Your task to perform on an android device: turn off sleep mode Image 0: 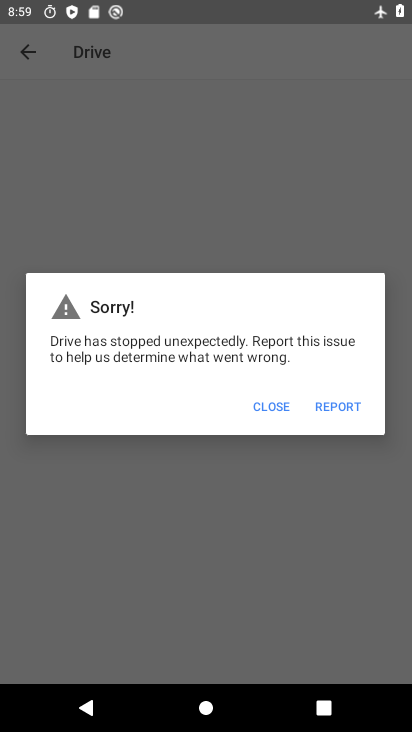
Step 0: press home button
Your task to perform on an android device: turn off sleep mode Image 1: 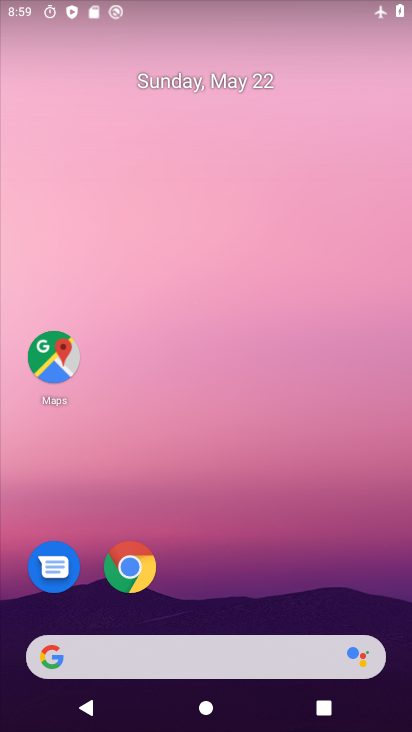
Step 1: drag from (200, 601) to (218, 0)
Your task to perform on an android device: turn off sleep mode Image 2: 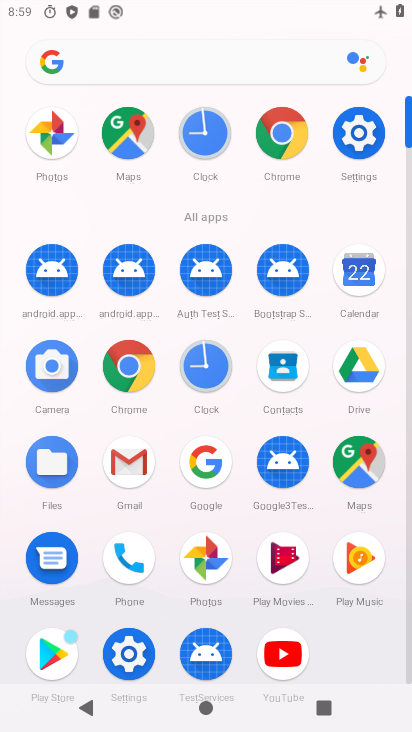
Step 2: click (359, 141)
Your task to perform on an android device: turn off sleep mode Image 3: 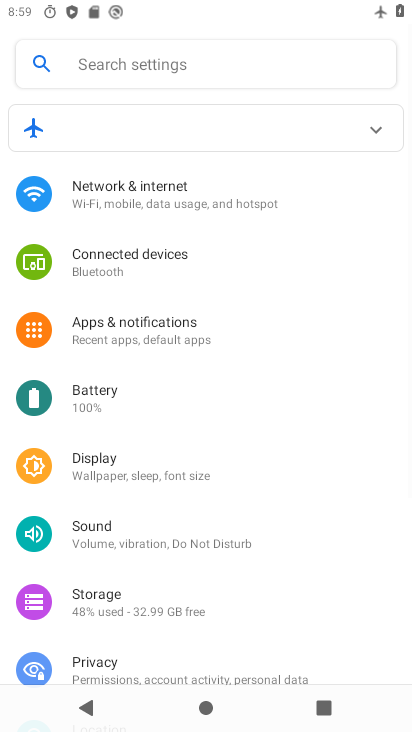
Step 3: click (186, 63)
Your task to perform on an android device: turn off sleep mode Image 4: 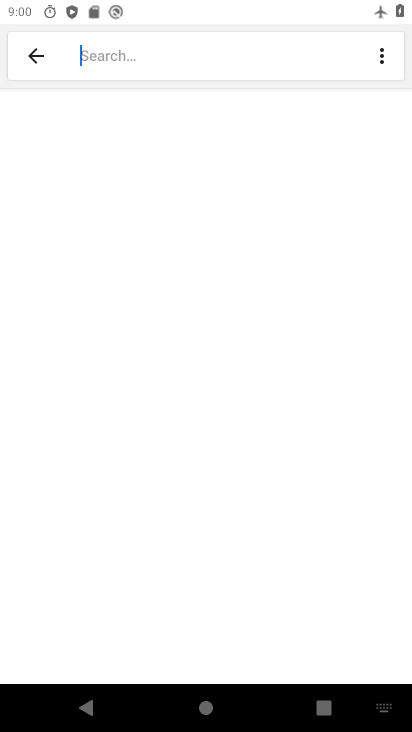
Step 4: type "sleep mode"
Your task to perform on an android device: turn off sleep mode Image 5: 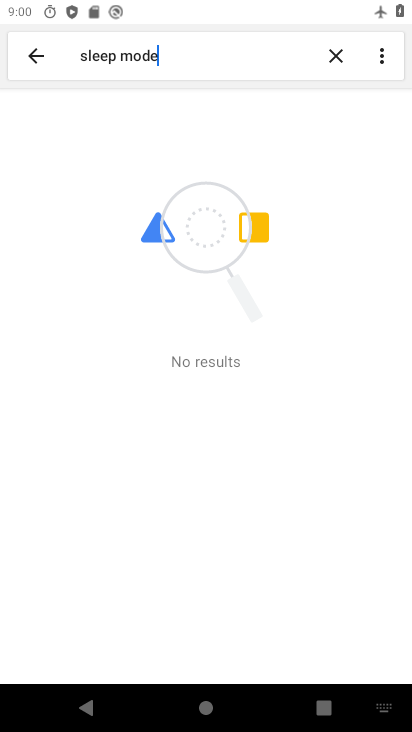
Step 5: task complete